Your task to perform on an android device: turn on data saver in the chrome app Image 0: 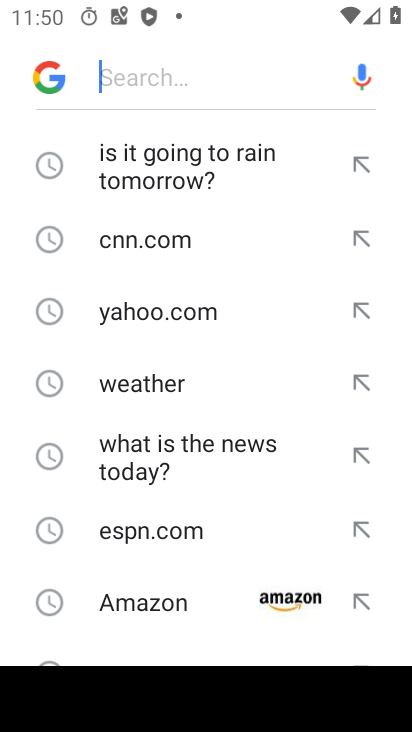
Step 0: press home button
Your task to perform on an android device: turn on data saver in the chrome app Image 1: 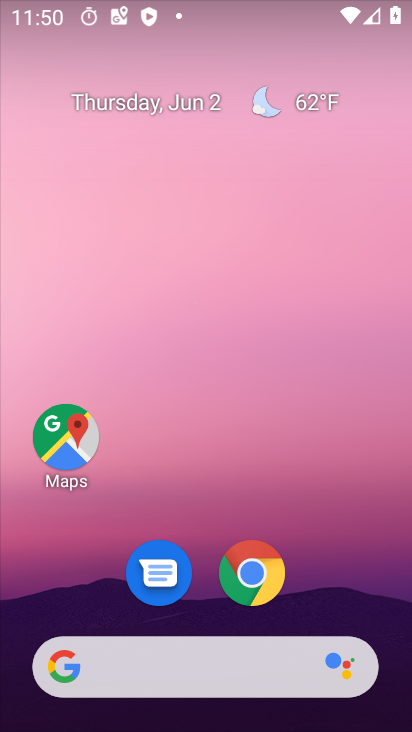
Step 1: drag from (299, 642) to (315, 27)
Your task to perform on an android device: turn on data saver in the chrome app Image 2: 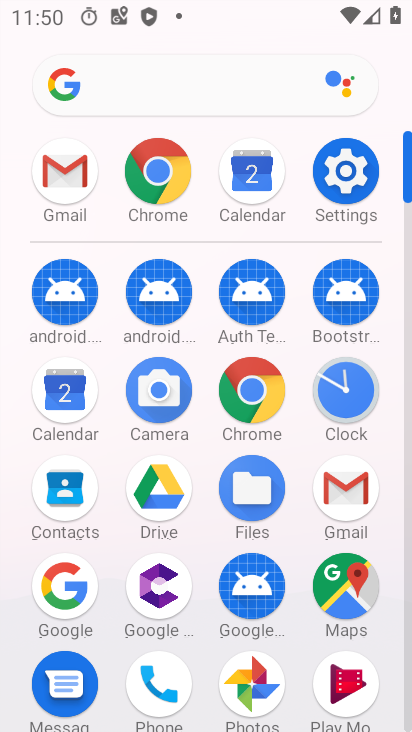
Step 2: click (255, 398)
Your task to perform on an android device: turn on data saver in the chrome app Image 3: 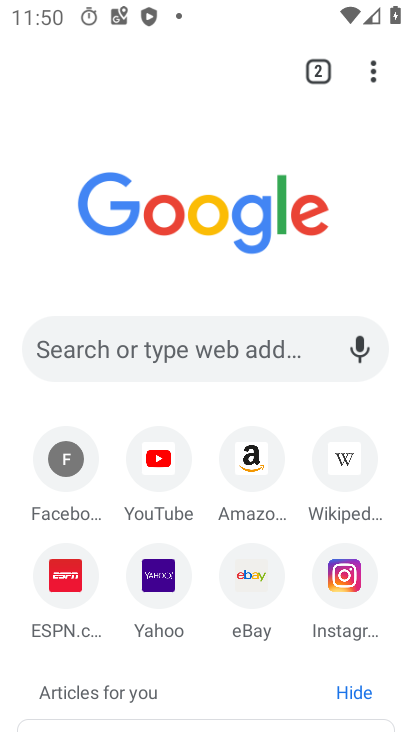
Step 3: drag from (372, 65) to (166, 614)
Your task to perform on an android device: turn on data saver in the chrome app Image 4: 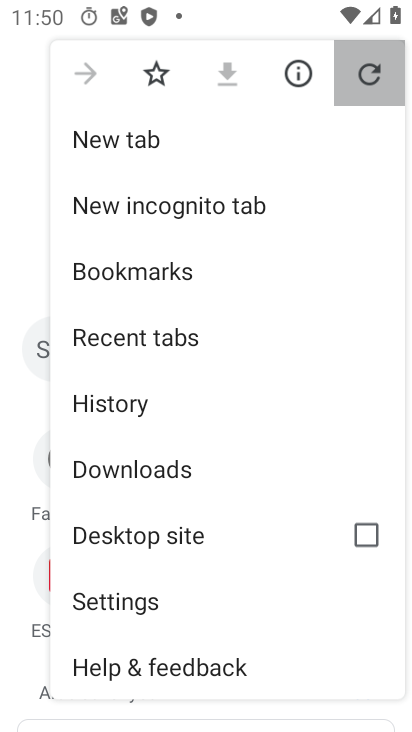
Step 4: click (163, 611)
Your task to perform on an android device: turn on data saver in the chrome app Image 5: 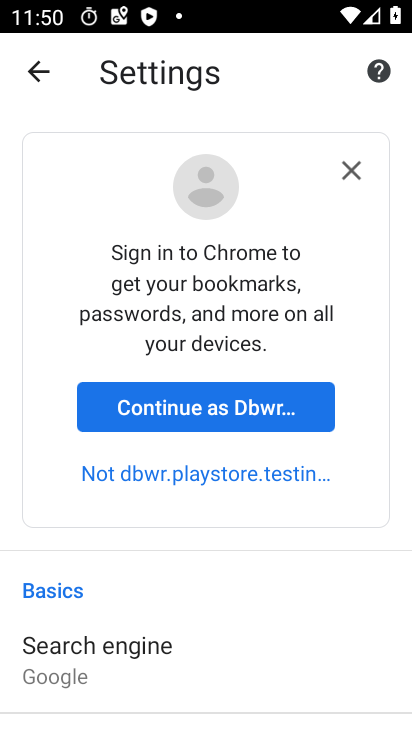
Step 5: drag from (267, 686) to (259, 170)
Your task to perform on an android device: turn on data saver in the chrome app Image 6: 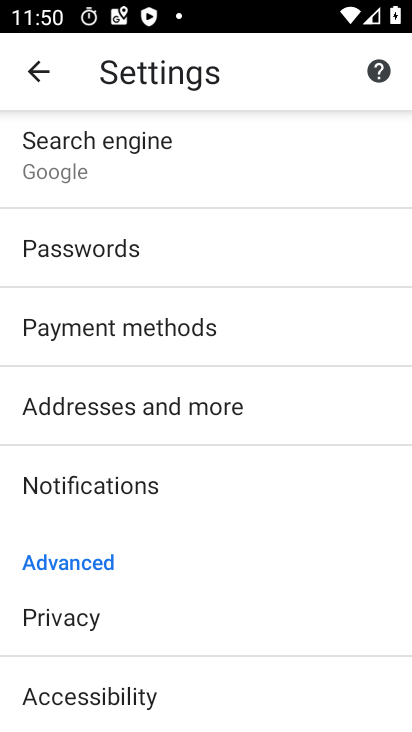
Step 6: drag from (196, 632) to (204, 209)
Your task to perform on an android device: turn on data saver in the chrome app Image 7: 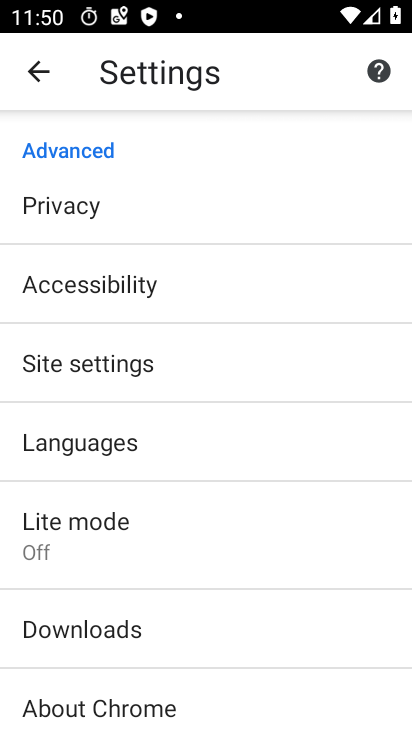
Step 7: click (131, 529)
Your task to perform on an android device: turn on data saver in the chrome app Image 8: 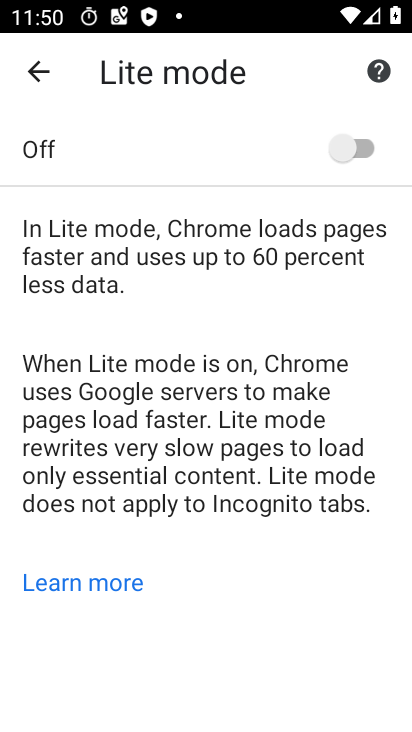
Step 8: click (355, 146)
Your task to perform on an android device: turn on data saver in the chrome app Image 9: 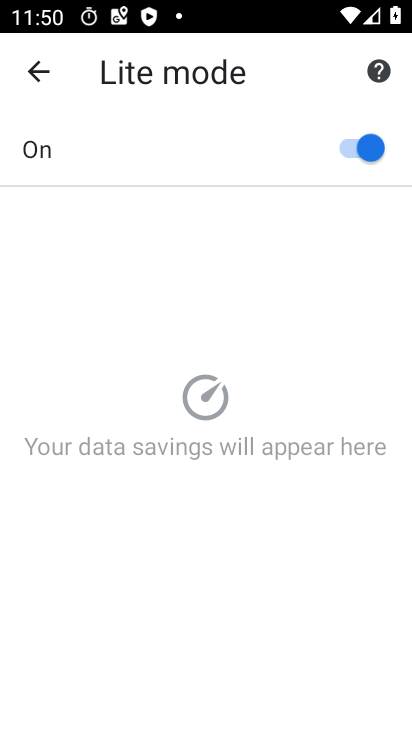
Step 9: task complete